Your task to perform on an android device: turn on location history Image 0: 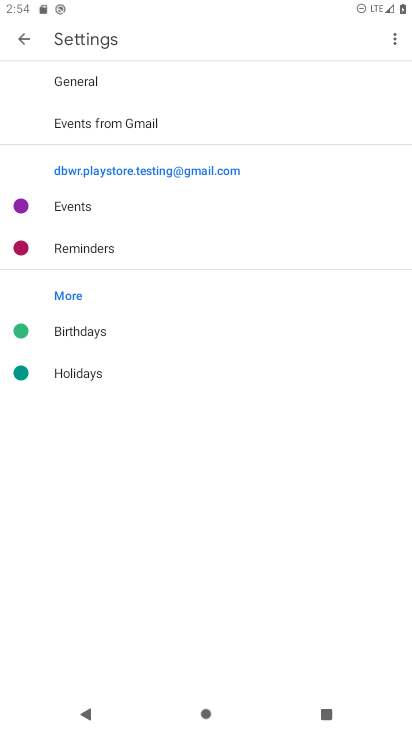
Step 0: press home button
Your task to perform on an android device: turn on location history Image 1: 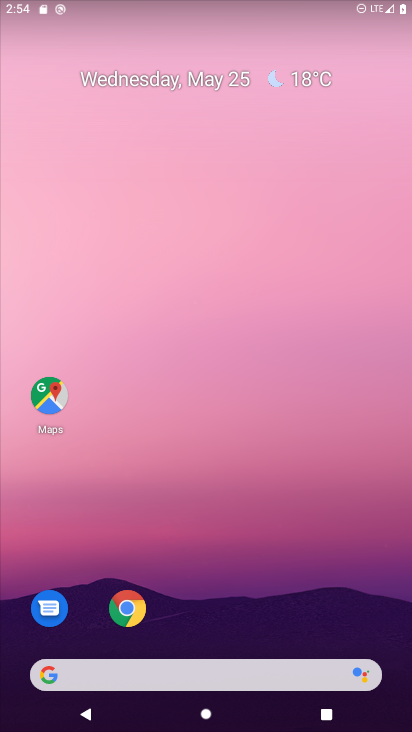
Step 1: drag from (405, 628) to (318, 248)
Your task to perform on an android device: turn on location history Image 2: 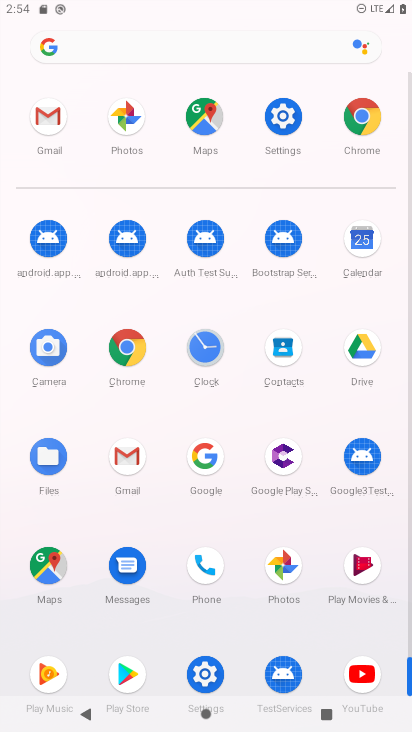
Step 2: click (49, 563)
Your task to perform on an android device: turn on location history Image 3: 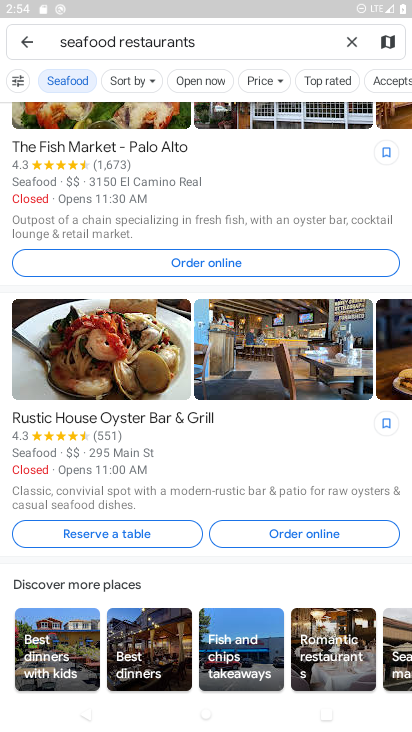
Step 3: click (349, 37)
Your task to perform on an android device: turn on location history Image 4: 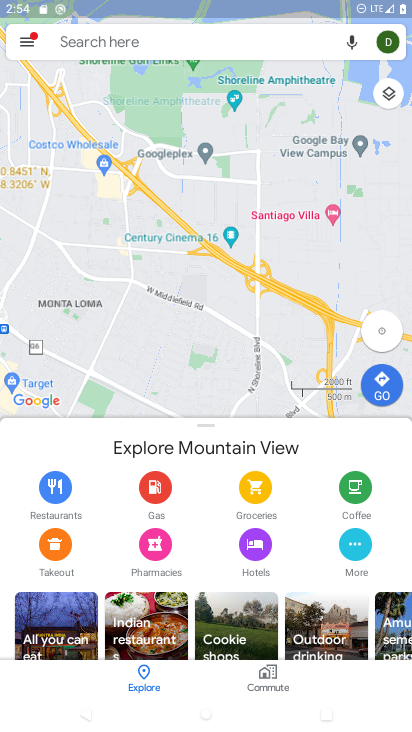
Step 4: click (23, 41)
Your task to perform on an android device: turn on location history Image 5: 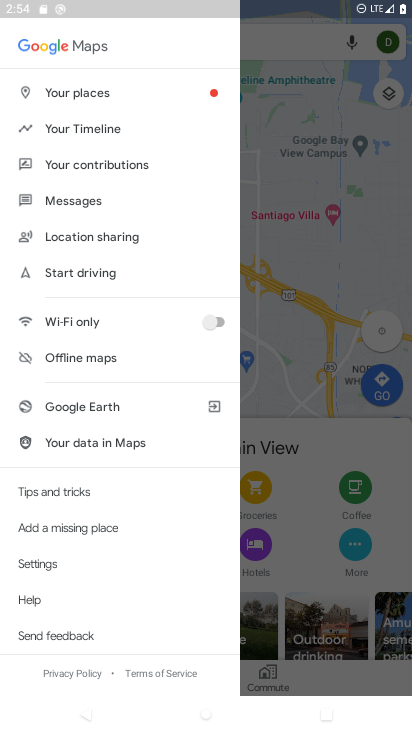
Step 5: click (48, 560)
Your task to perform on an android device: turn on location history Image 6: 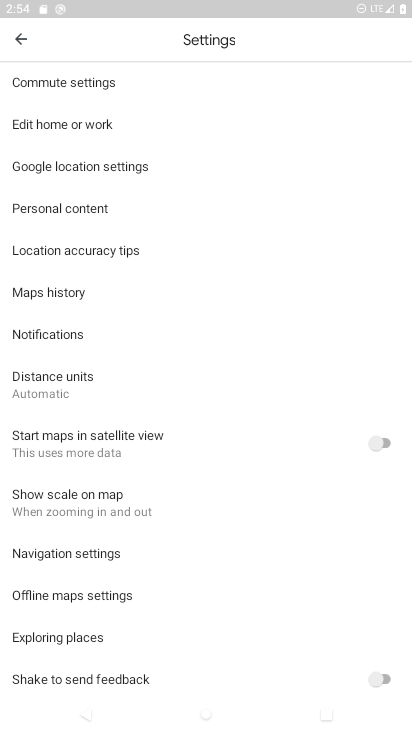
Step 6: click (57, 208)
Your task to perform on an android device: turn on location history Image 7: 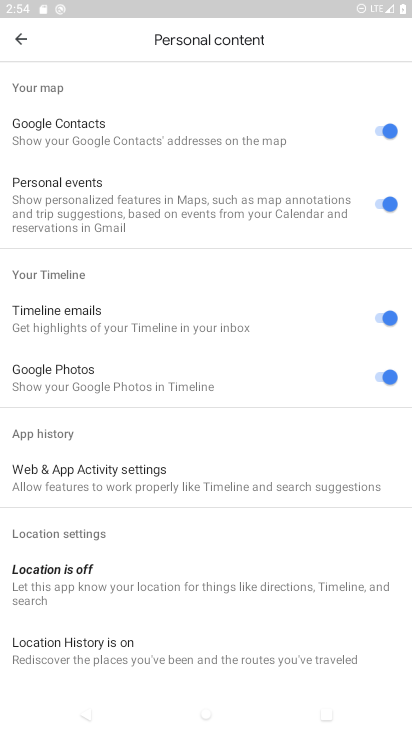
Step 7: drag from (269, 597) to (262, 300)
Your task to perform on an android device: turn on location history Image 8: 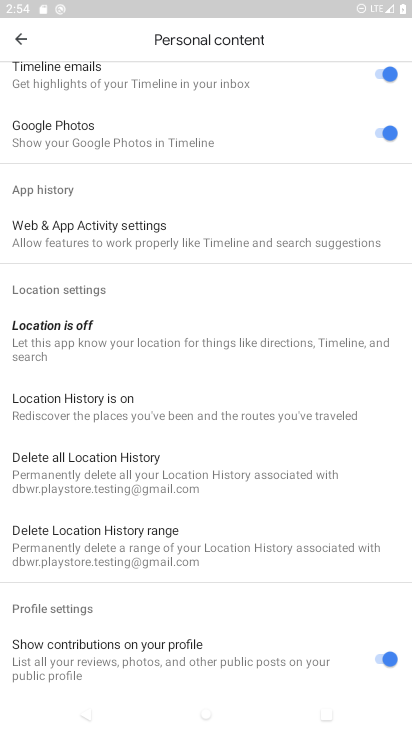
Step 8: click (79, 410)
Your task to perform on an android device: turn on location history Image 9: 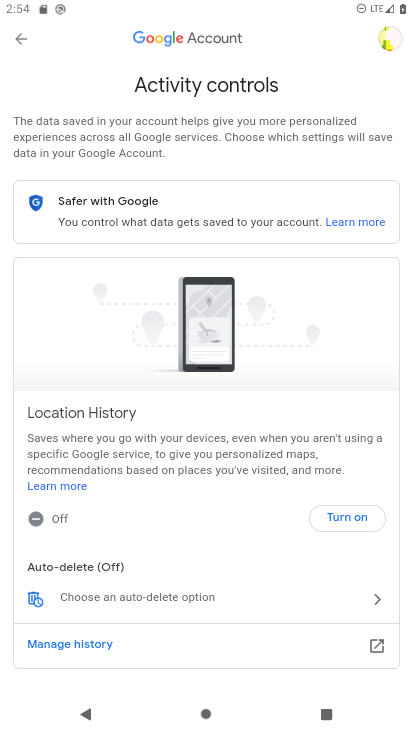
Step 9: click (341, 513)
Your task to perform on an android device: turn on location history Image 10: 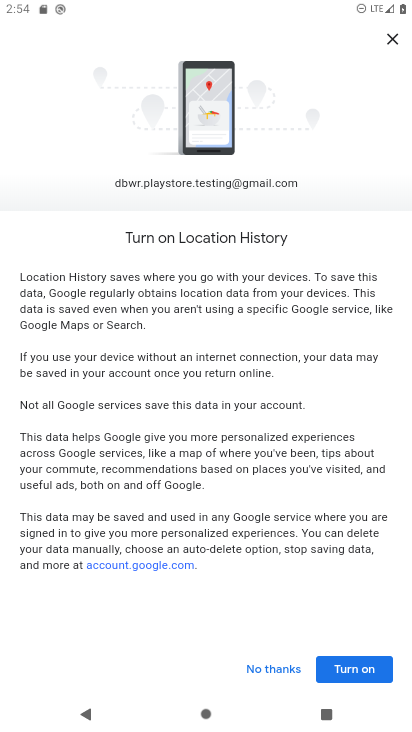
Step 10: click (351, 669)
Your task to perform on an android device: turn on location history Image 11: 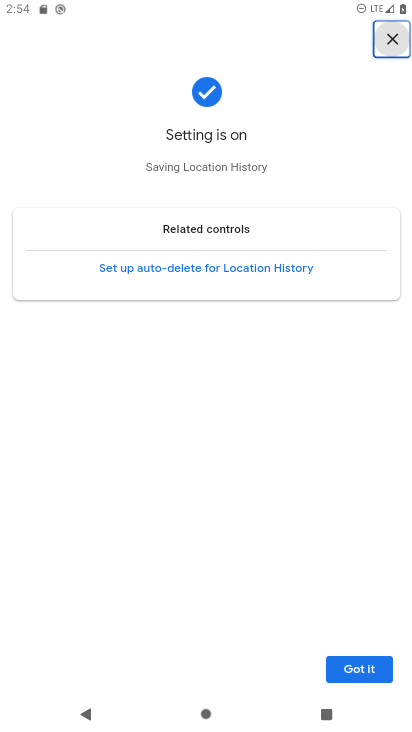
Step 11: click (354, 670)
Your task to perform on an android device: turn on location history Image 12: 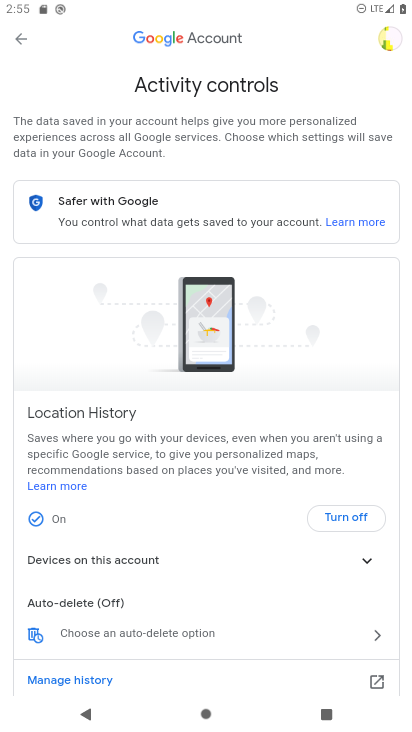
Step 12: task complete